Your task to perform on an android device: Go to privacy settings Image 0: 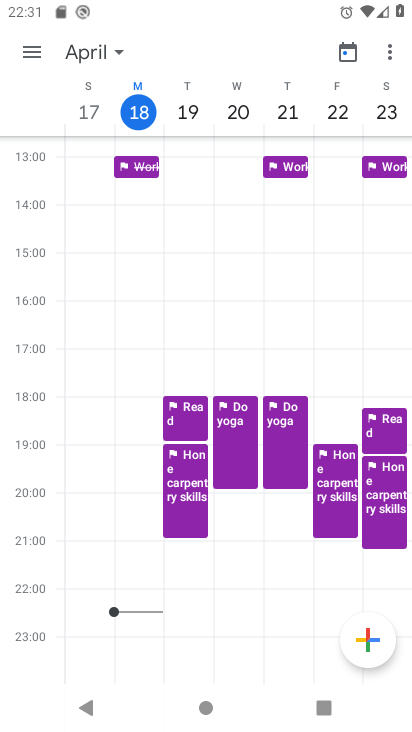
Step 0: press home button
Your task to perform on an android device: Go to privacy settings Image 1: 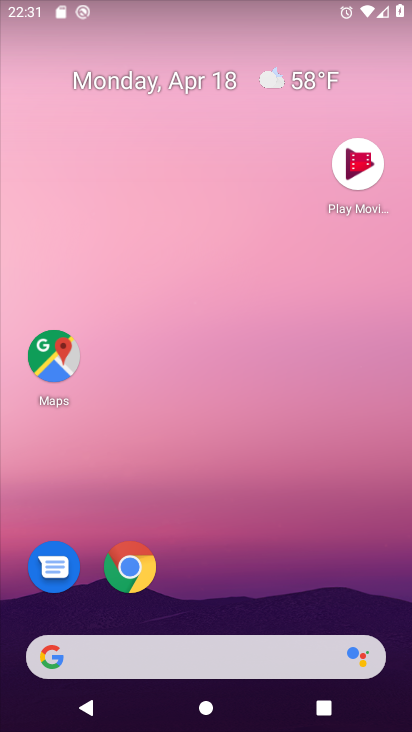
Step 1: drag from (188, 619) to (277, 93)
Your task to perform on an android device: Go to privacy settings Image 2: 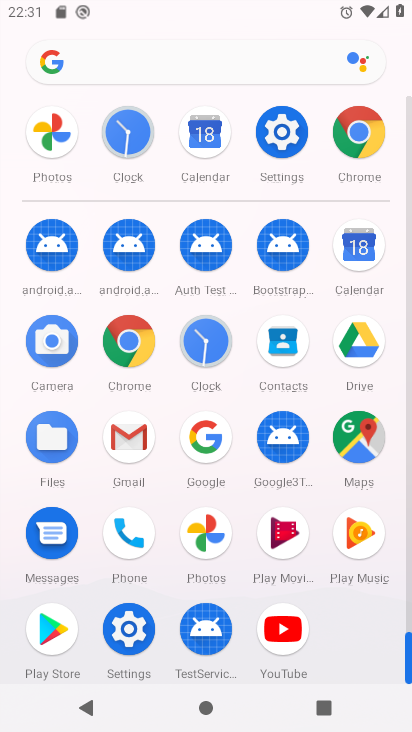
Step 2: click (113, 338)
Your task to perform on an android device: Go to privacy settings Image 3: 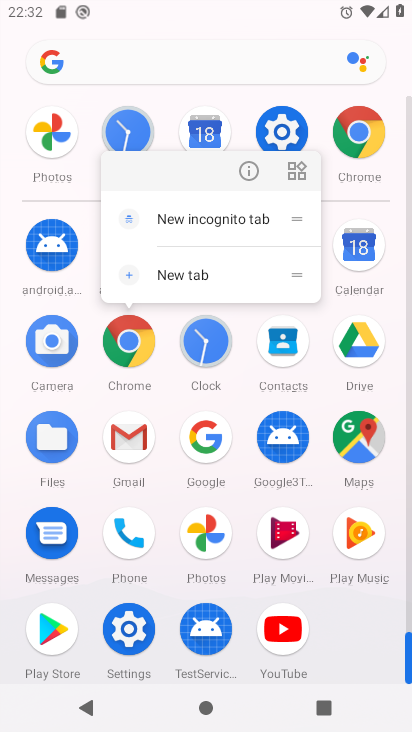
Step 3: click (251, 168)
Your task to perform on an android device: Go to privacy settings Image 4: 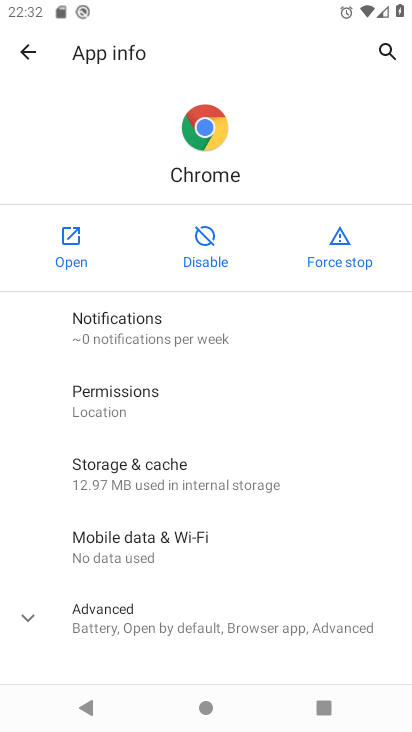
Step 4: click (73, 247)
Your task to perform on an android device: Go to privacy settings Image 5: 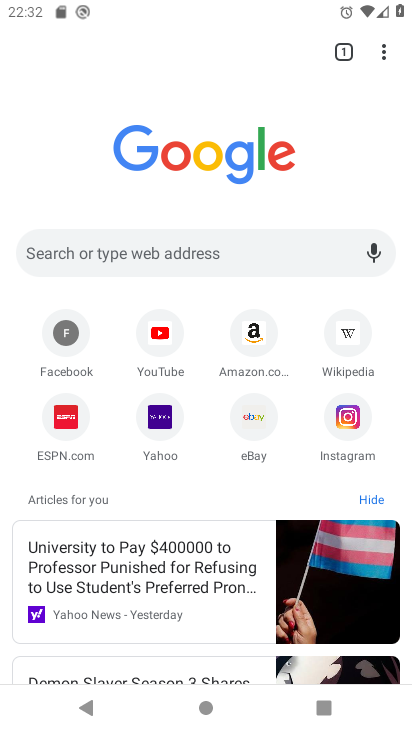
Step 5: drag from (386, 46) to (208, 503)
Your task to perform on an android device: Go to privacy settings Image 6: 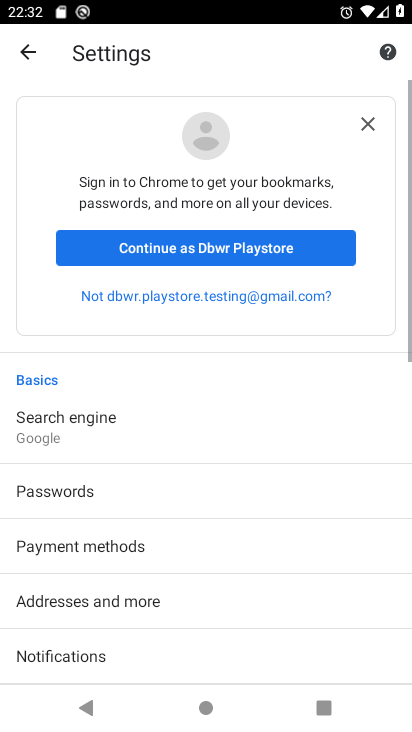
Step 6: drag from (163, 391) to (277, 100)
Your task to perform on an android device: Go to privacy settings Image 7: 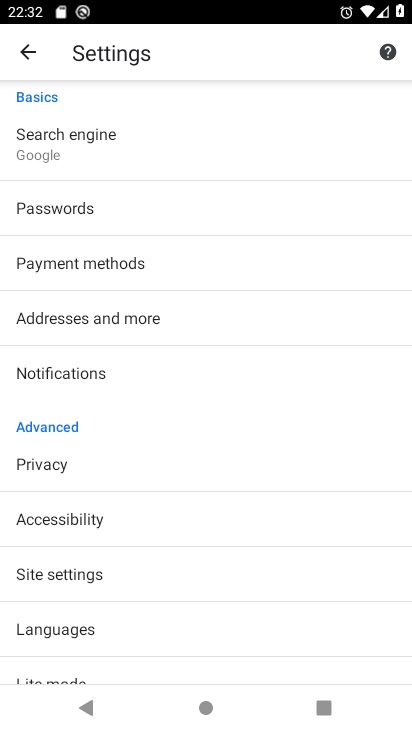
Step 7: click (103, 465)
Your task to perform on an android device: Go to privacy settings Image 8: 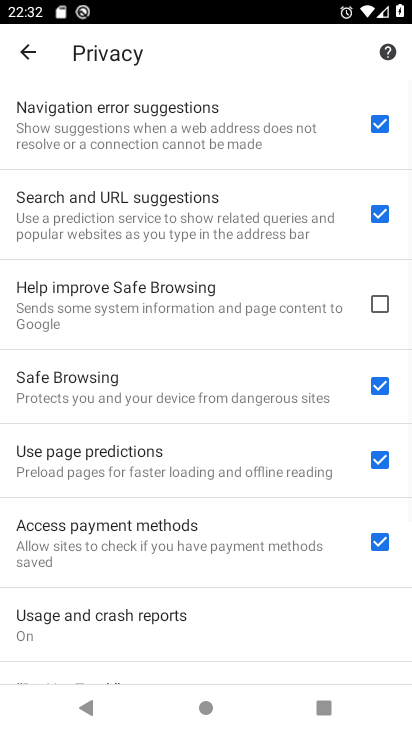
Step 8: task complete